Your task to perform on an android device: When is my next appointment? Image 0: 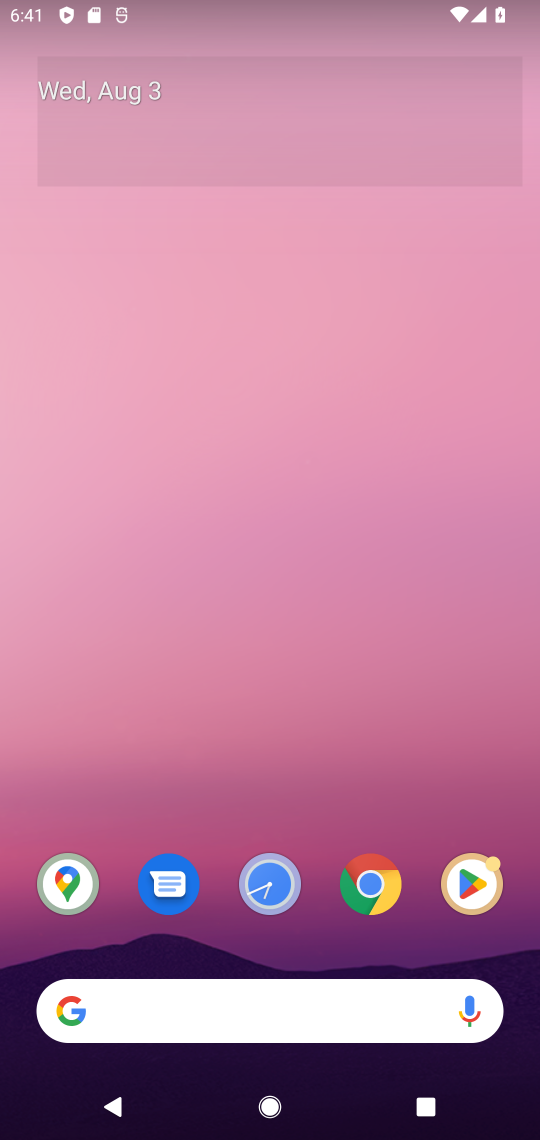
Step 0: drag from (323, 737) to (342, 45)
Your task to perform on an android device: When is my next appointment? Image 1: 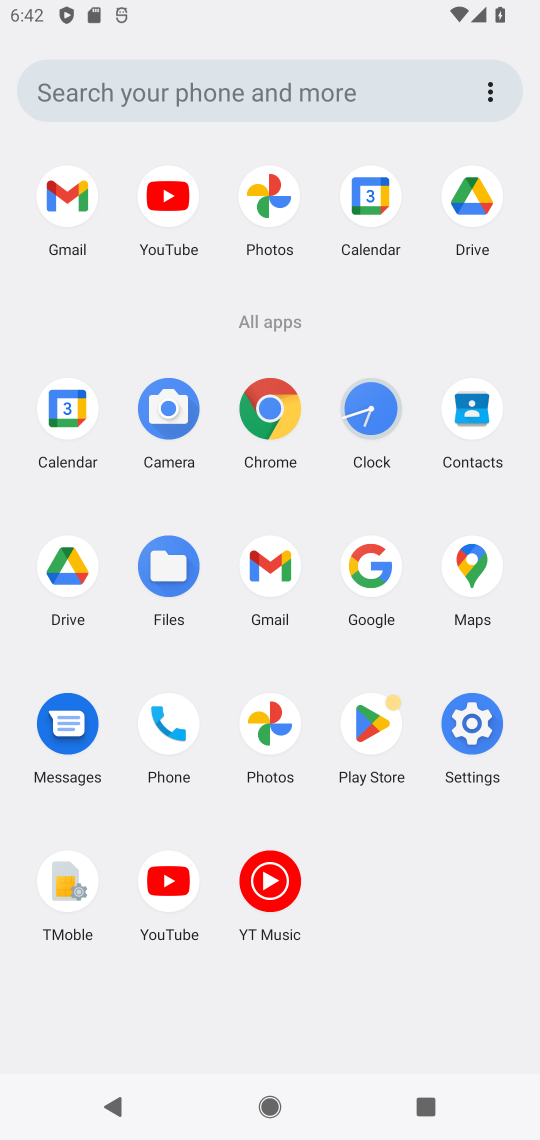
Step 1: click (353, 212)
Your task to perform on an android device: When is my next appointment? Image 2: 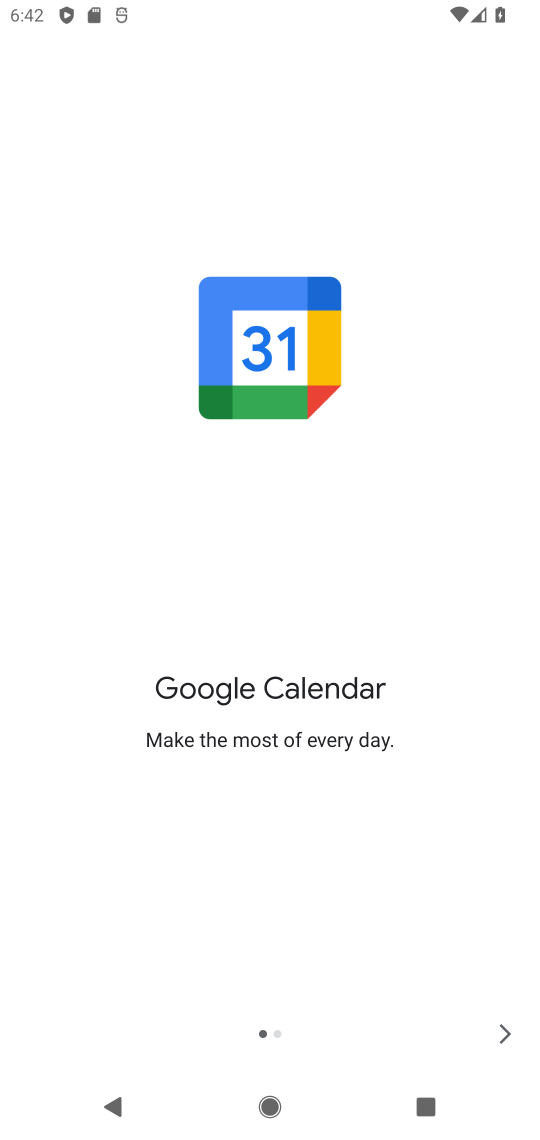
Step 2: click (504, 1033)
Your task to perform on an android device: When is my next appointment? Image 3: 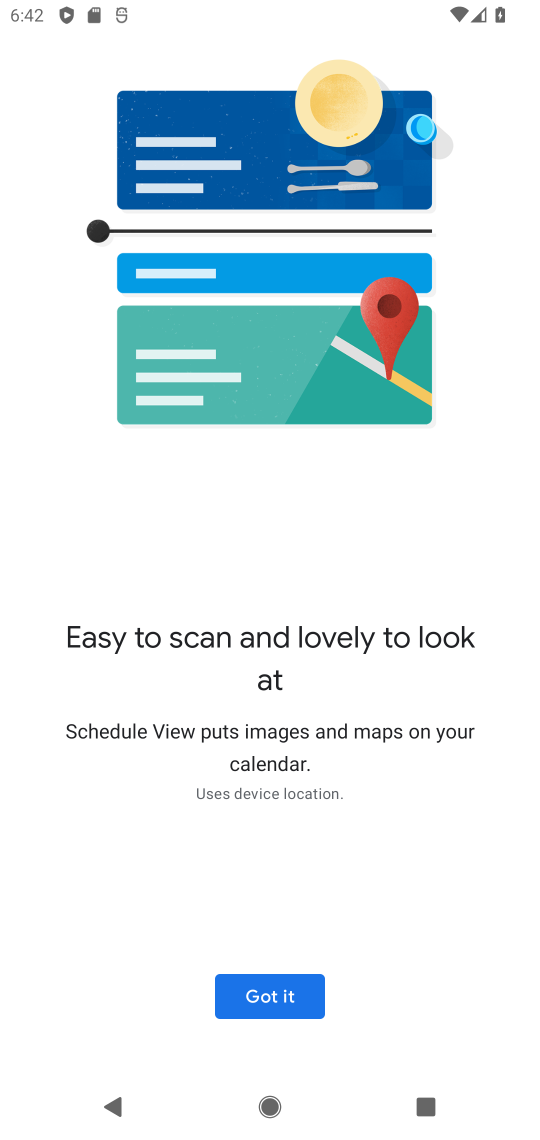
Step 3: click (277, 1013)
Your task to perform on an android device: When is my next appointment? Image 4: 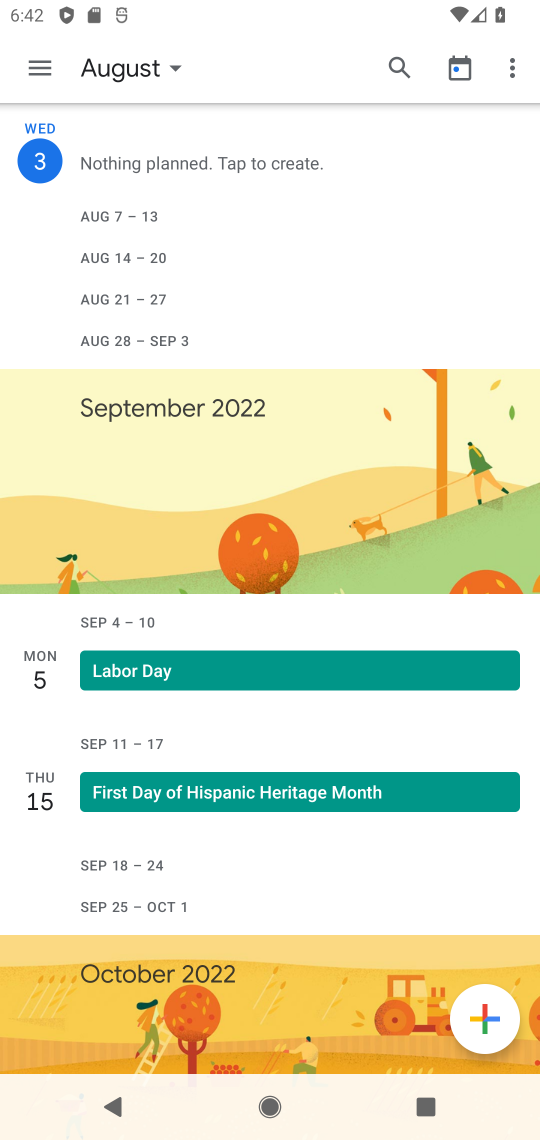
Step 4: task complete